Your task to perform on an android device: Open internet settings Image 0: 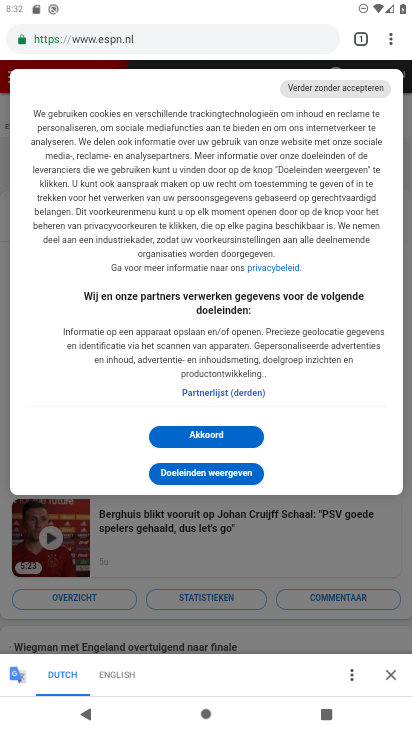
Step 0: press home button
Your task to perform on an android device: Open internet settings Image 1: 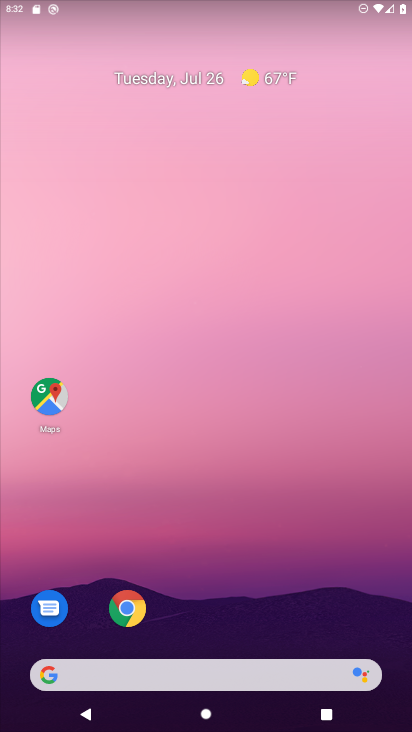
Step 1: drag from (178, 636) to (284, 221)
Your task to perform on an android device: Open internet settings Image 2: 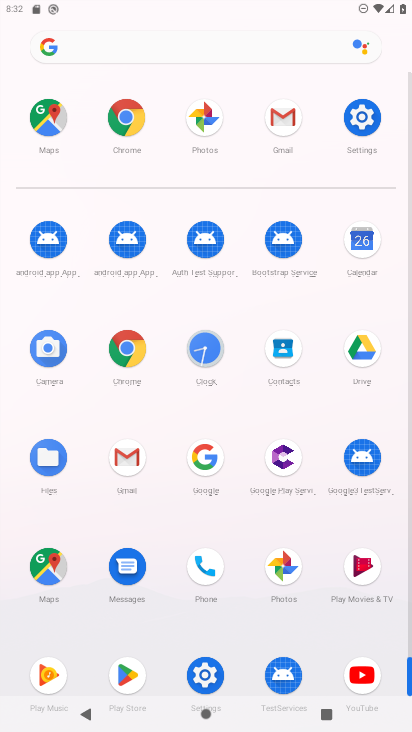
Step 2: click (203, 663)
Your task to perform on an android device: Open internet settings Image 3: 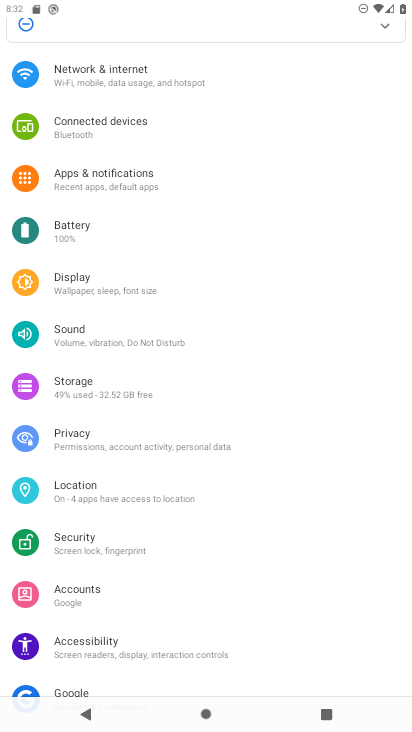
Step 3: click (129, 82)
Your task to perform on an android device: Open internet settings Image 4: 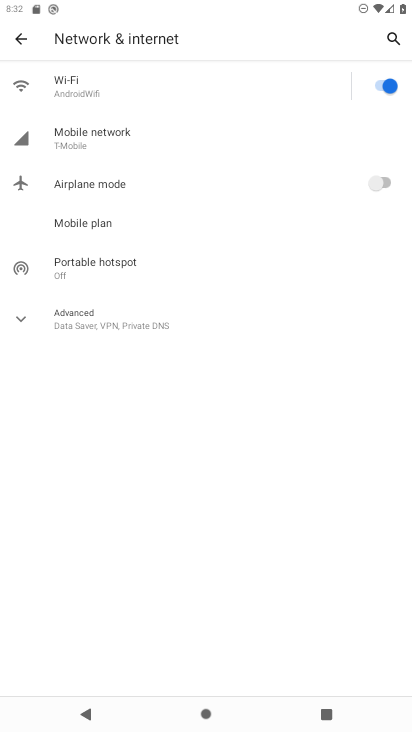
Step 4: task complete